Your task to perform on an android device: open app "Facebook Lite" (install if not already installed) and go to login screen Image 0: 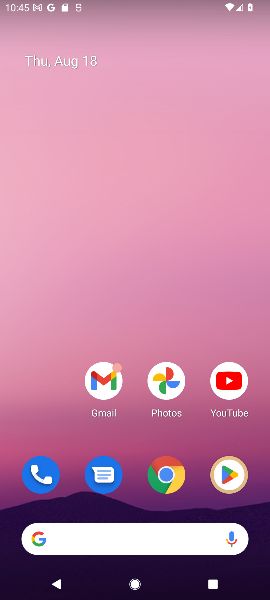
Step 0: press home button
Your task to perform on an android device: open app "Facebook Lite" (install if not already installed) and go to login screen Image 1: 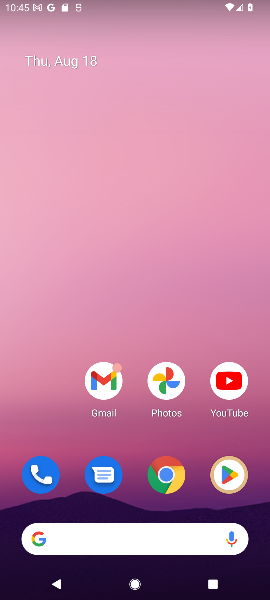
Step 1: press home button
Your task to perform on an android device: open app "Facebook Lite" (install if not already installed) and go to login screen Image 2: 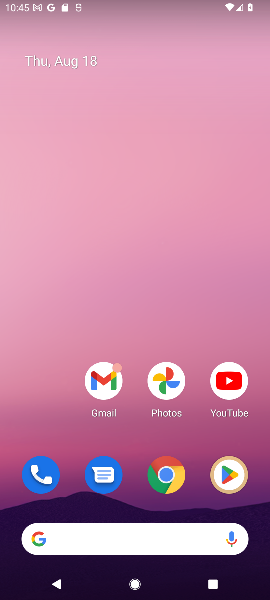
Step 2: drag from (135, 452) to (152, 0)
Your task to perform on an android device: open app "Facebook Lite" (install if not already installed) and go to login screen Image 3: 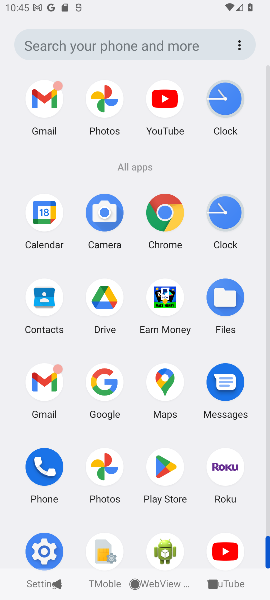
Step 3: click (161, 462)
Your task to perform on an android device: open app "Facebook Lite" (install if not already installed) and go to login screen Image 4: 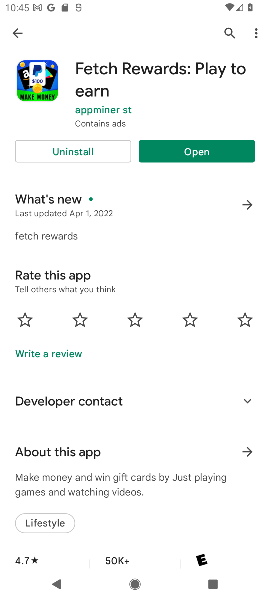
Step 4: click (16, 35)
Your task to perform on an android device: open app "Facebook Lite" (install if not already installed) and go to login screen Image 5: 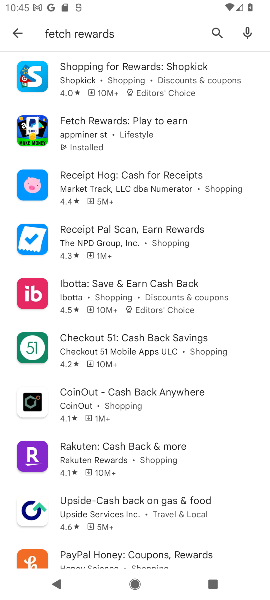
Step 5: click (213, 26)
Your task to perform on an android device: open app "Facebook Lite" (install if not already installed) and go to login screen Image 6: 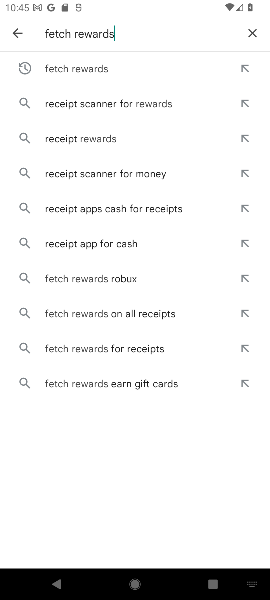
Step 6: click (250, 33)
Your task to perform on an android device: open app "Facebook Lite" (install if not already installed) and go to login screen Image 7: 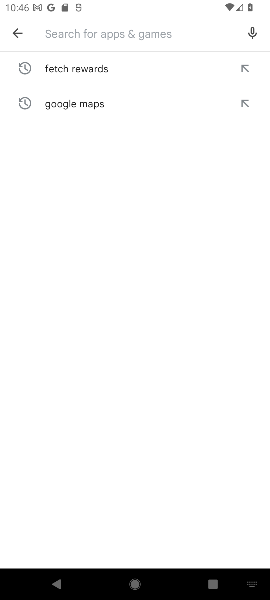
Step 7: type "Facebook Lite"
Your task to perform on an android device: open app "Facebook Lite" (install if not already installed) and go to login screen Image 8: 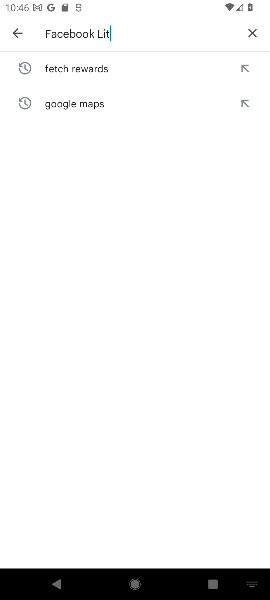
Step 8: type ""
Your task to perform on an android device: open app "Facebook Lite" (install if not already installed) and go to login screen Image 9: 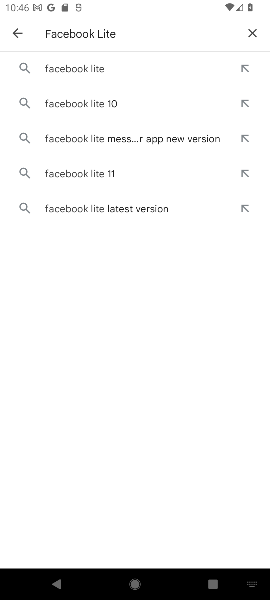
Step 9: click (117, 68)
Your task to perform on an android device: open app "Facebook Lite" (install if not already installed) and go to login screen Image 10: 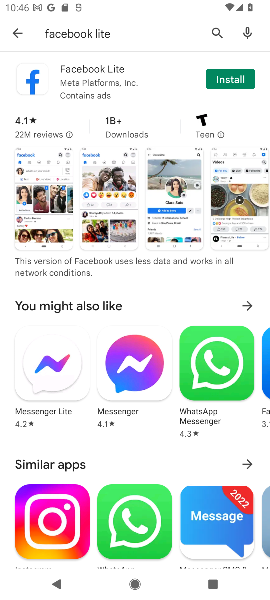
Step 10: click (229, 79)
Your task to perform on an android device: open app "Facebook Lite" (install if not already installed) and go to login screen Image 11: 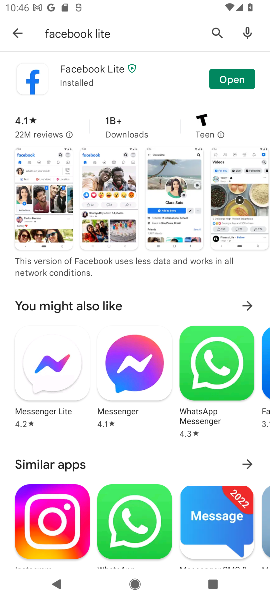
Step 11: click (227, 76)
Your task to perform on an android device: open app "Facebook Lite" (install if not already installed) and go to login screen Image 12: 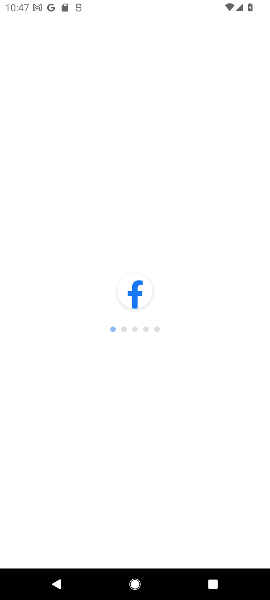
Step 12: task complete